Your task to perform on an android device: toggle wifi Image 0: 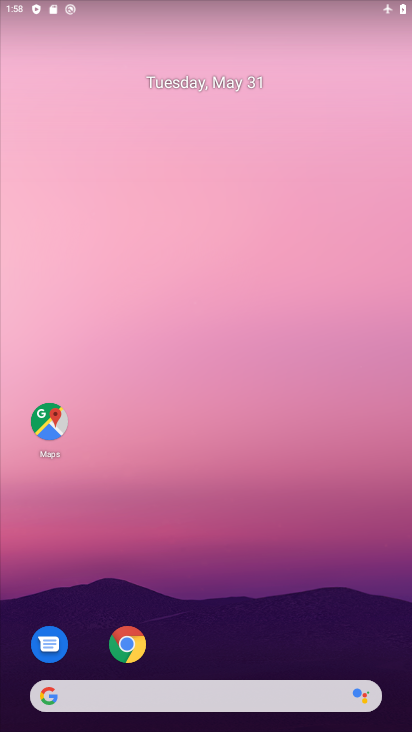
Step 0: drag from (232, 115) to (229, 63)
Your task to perform on an android device: toggle wifi Image 1: 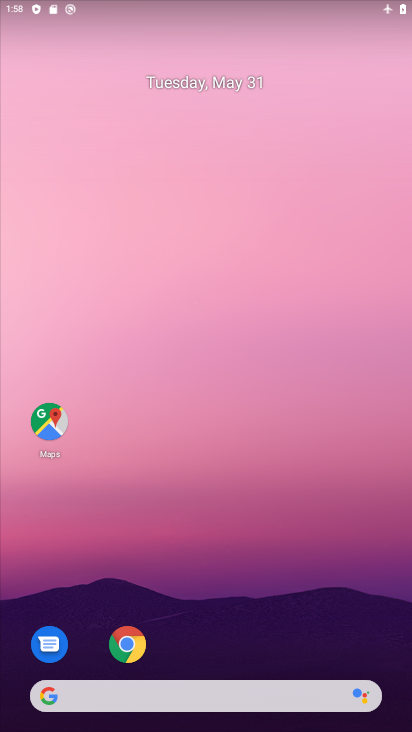
Step 1: press home button
Your task to perform on an android device: toggle wifi Image 2: 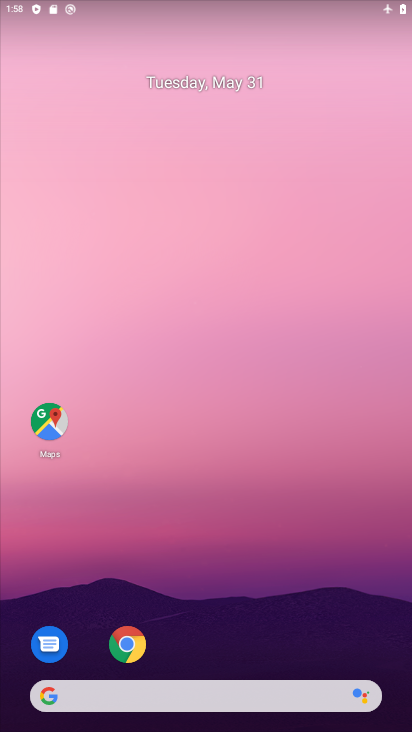
Step 2: drag from (270, 533) to (277, 99)
Your task to perform on an android device: toggle wifi Image 3: 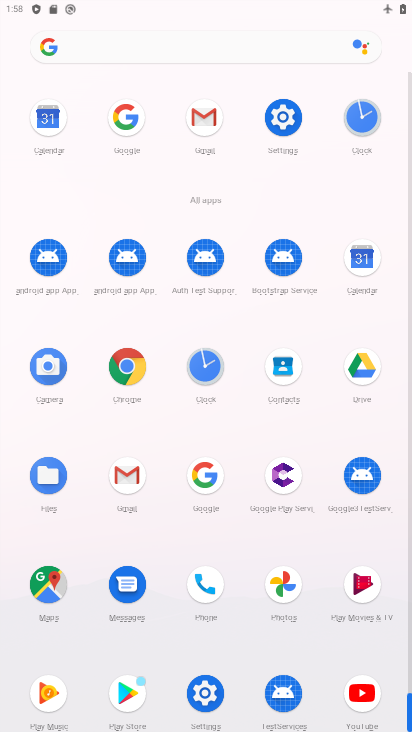
Step 3: click (291, 114)
Your task to perform on an android device: toggle wifi Image 4: 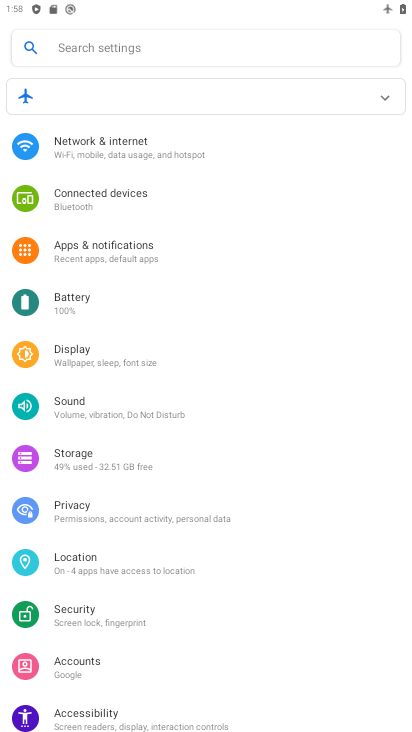
Step 4: click (127, 159)
Your task to perform on an android device: toggle wifi Image 5: 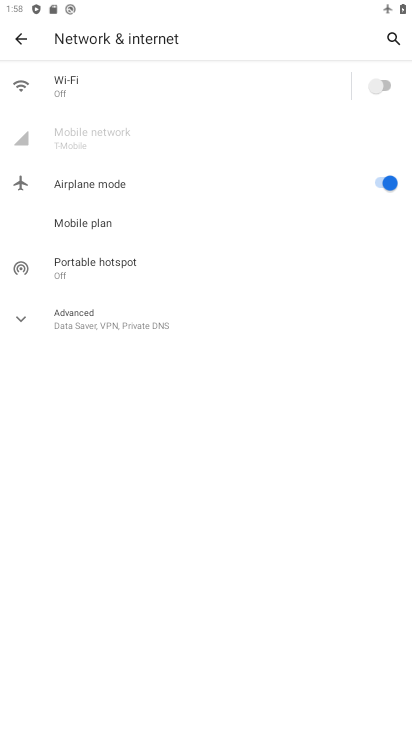
Step 5: click (223, 79)
Your task to perform on an android device: toggle wifi Image 6: 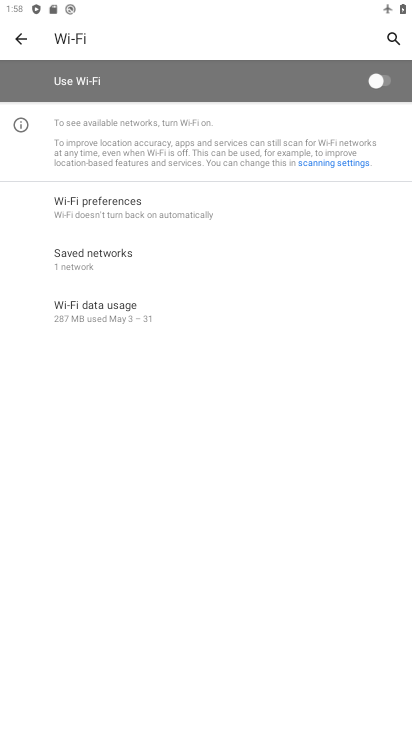
Step 6: click (367, 71)
Your task to perform on an android device: toggle wifi Image 7: 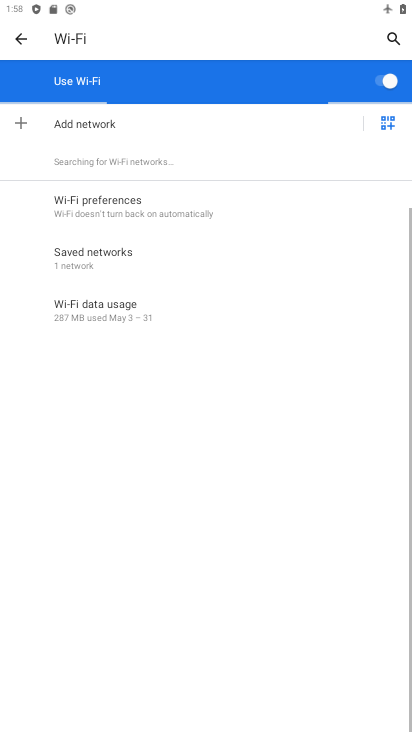
Step 7: task complete